Your task to perform on an android device: Search for seafood restaurants on Google Maps Image 0: 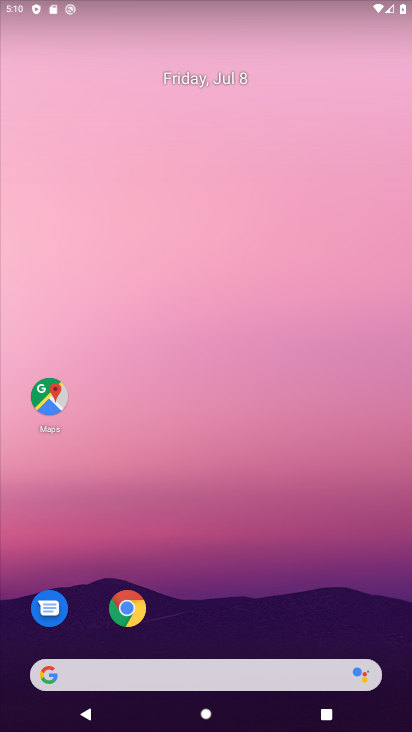
Step 0: drag from (342, 681) to (410, 53)
Your task to perform on an android device: Search for seafood restaurants on Google Maps Image 1: 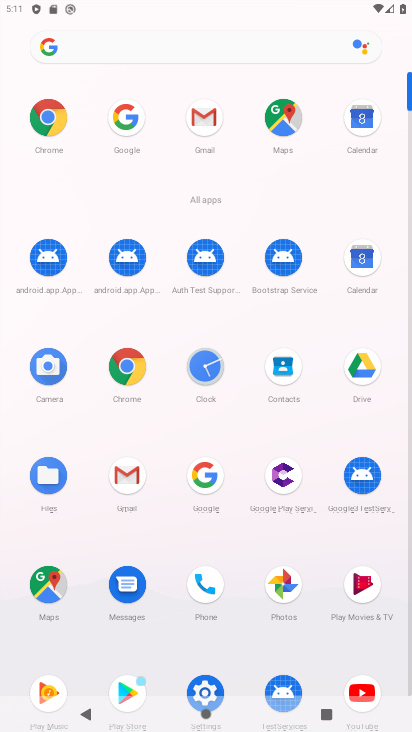
Step 1: click (52, 587)
Your task to perform on an android device: Search for seafood restaurants on Google Maps Image 2: 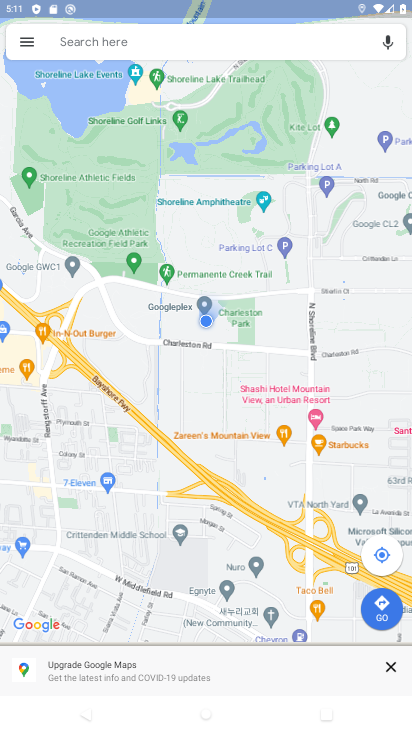
Step 2: click (164, 45)
Your task to perform on an android device: Search for seafood restaurants on Google Maps Image 3: 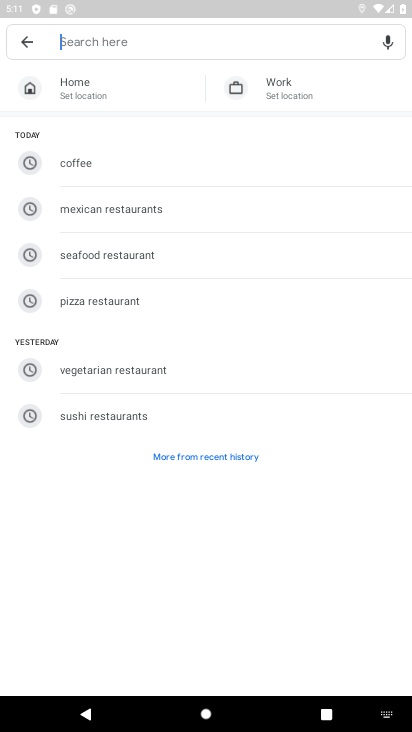
Step 3: click (100, 240)
Your task to perform on an android device: Search for seafood restaurants on Google Maps Image 4: 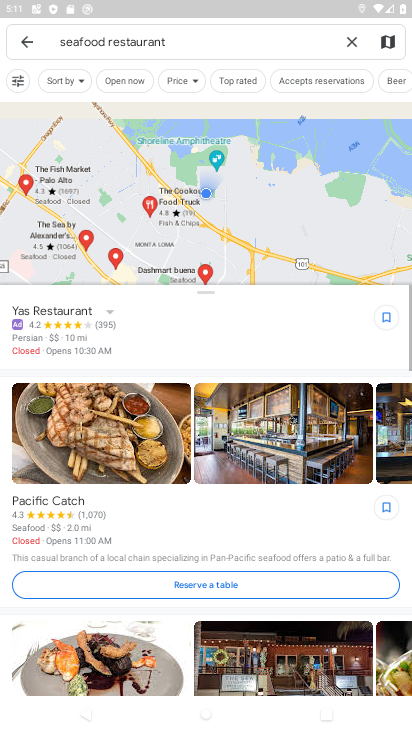
Step 4: task complete